Your task to perform on an android device: Open ESPN.com Image 0: 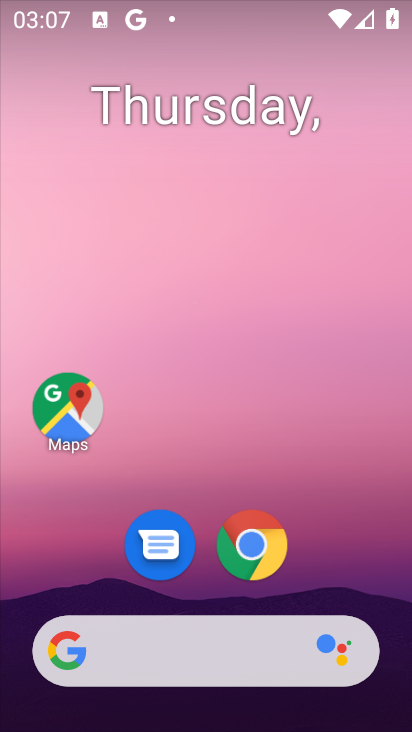
Step 0: click (240, 639)
Your task to perform on an android device: Open ESPN.com Image 1: 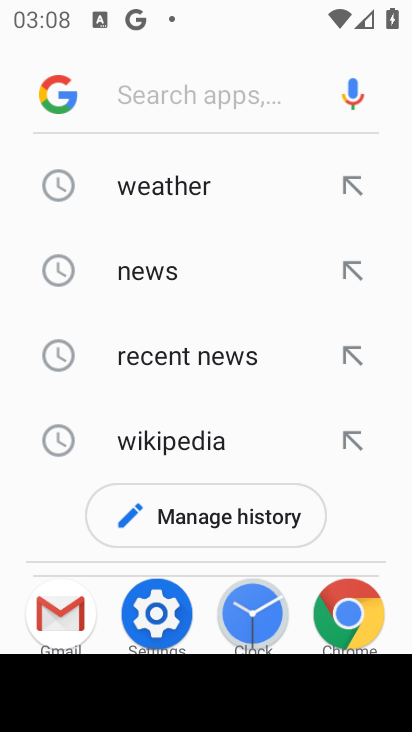
Step 1: type "espn.com"
Your task to perform on an android device: Open ESPN.com Image 2: 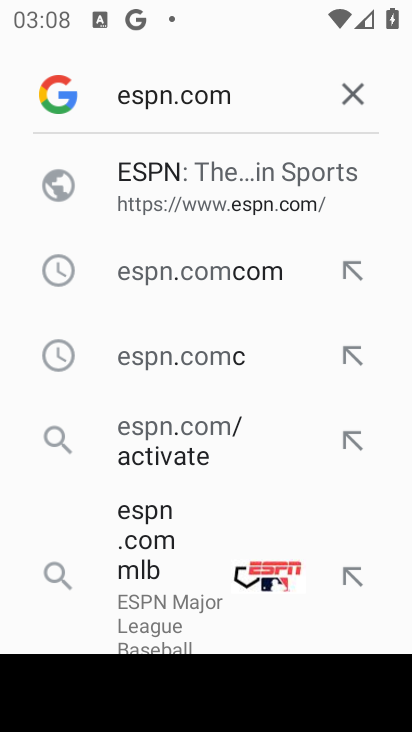
Step 2: click (326, 171)
Your task to perform on an android device: Open ESPN.com Image 3: 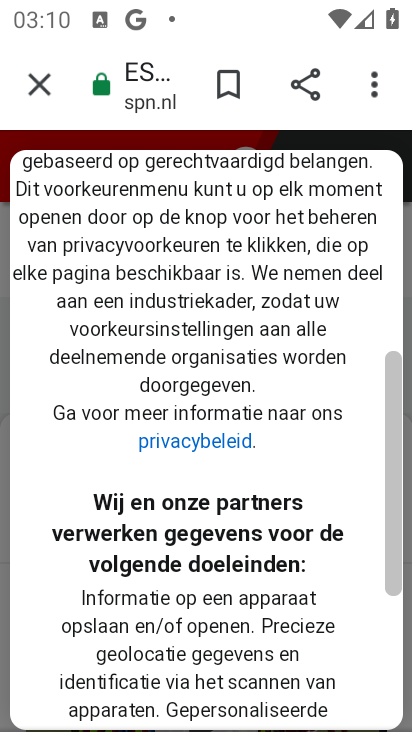
Step 3: task complete